Your task to perform on an android device: turn on javascript in the chrome app Image 0: 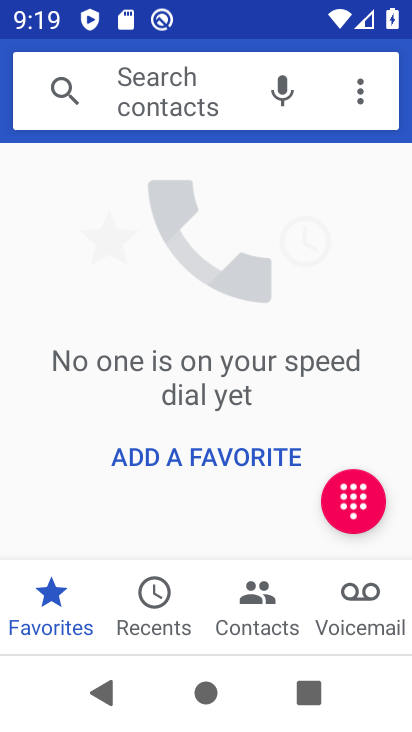
Step 0: press home button
Your task to perform on an android device: turn on javascript in the chrome app Image 1: 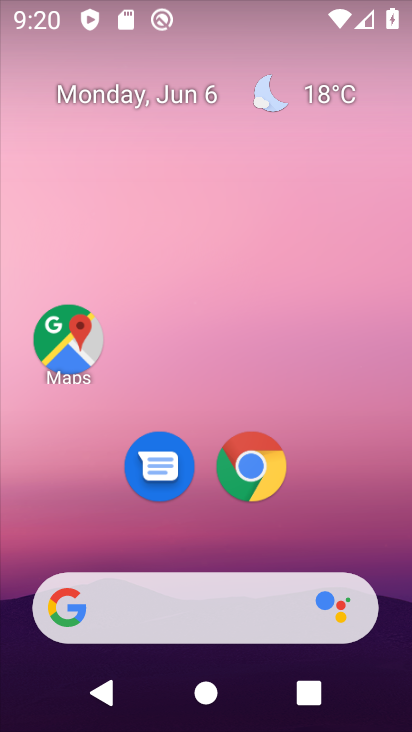
Step 1: click (261, 472)
Your task to perform on an android device: turn on javascript in the chrome app Image 2: 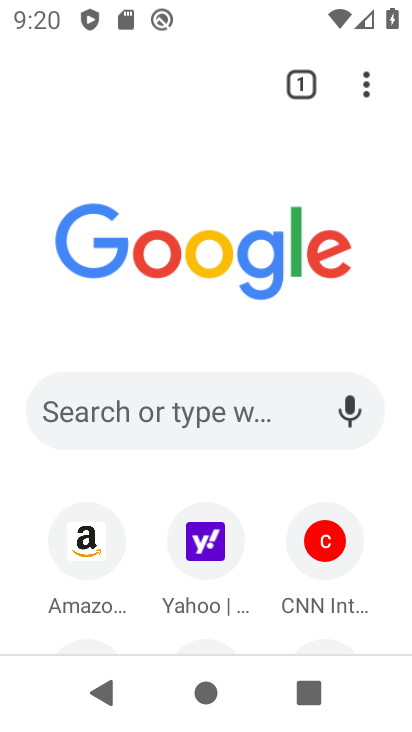
Step 2: click (366, 74)
Your task to perform on an android device: turn on javascript in the chrome app Image 3: 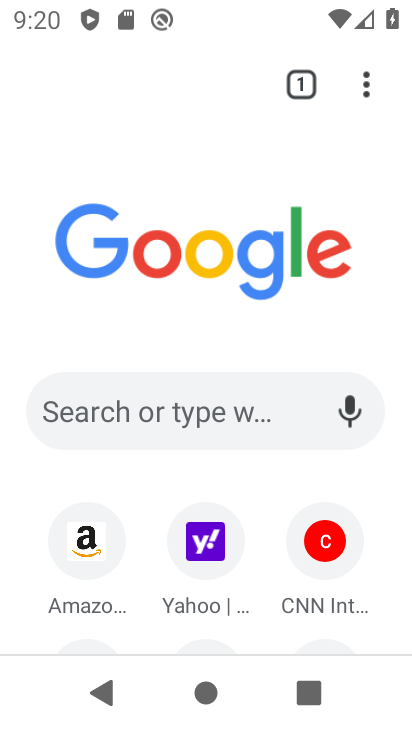
Step 3: click (365, 93)
Your task to perform on an android device: turn on javascript in the chrome app Image 4: 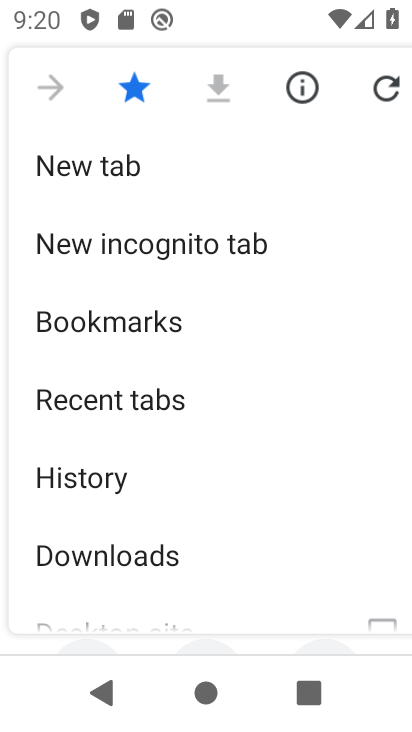
Step 4: drag from (199, 512) to (199, 201)
Your task to perform on an android device: turn on javascript in the chrome app Image 5: 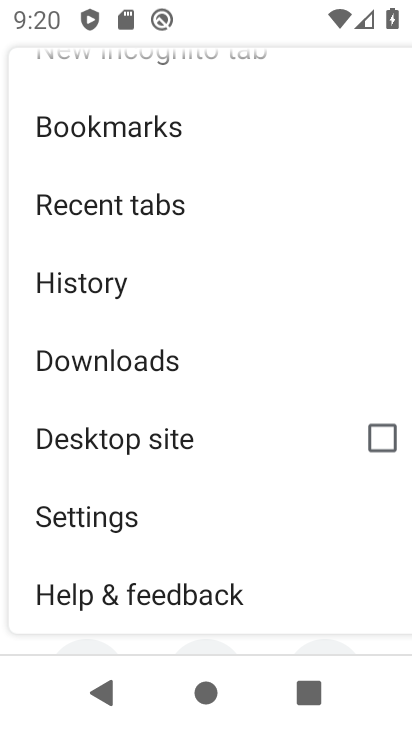
Step 5: click (94, 509)
Your task to perform on an android device: turn on javascript in the chrome app Image 6: 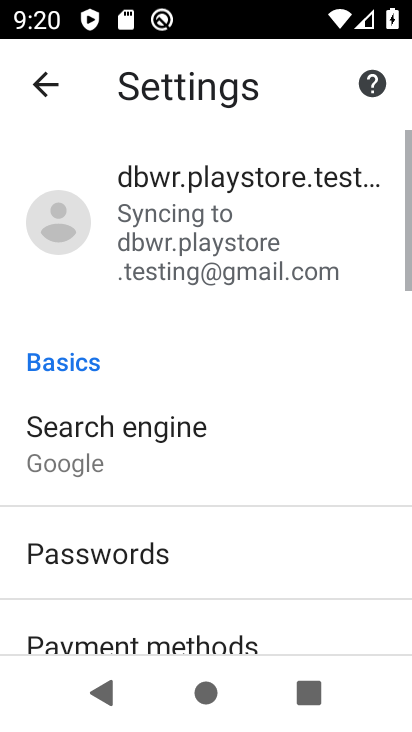
Step 6: click (207, 237)
Your task to perform on an android device: turn on javascript in the chrome app Image 7: 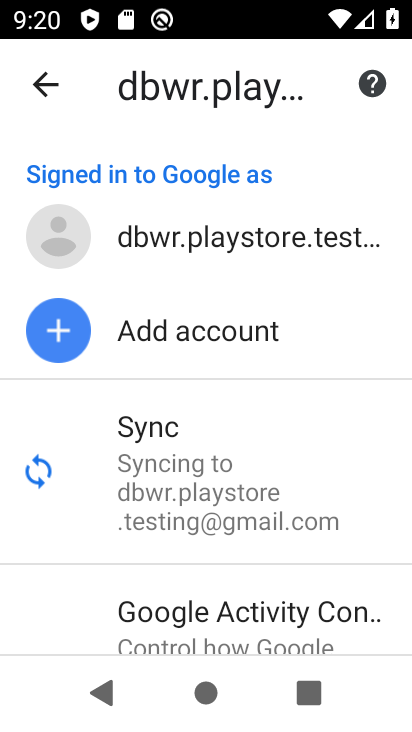
Step 7: click (43, 98)
Your task to perform on an android device: turn on javascript in the chrome app Image 8: 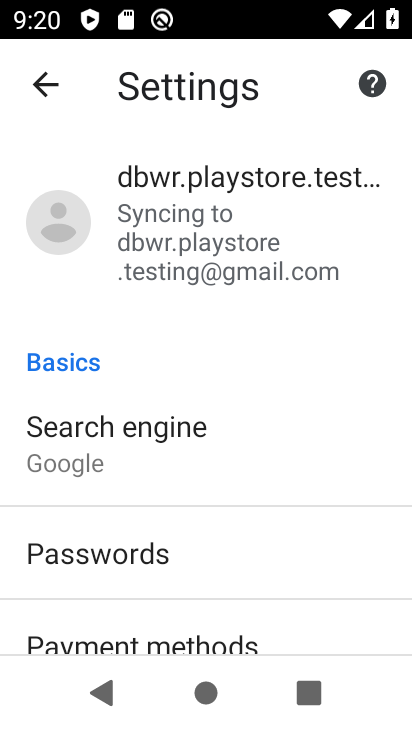
Step 8: drag from (114, 574) to (149, 220)
Your task to perform on an android device: turn on javascript in the chrome app Image 9: 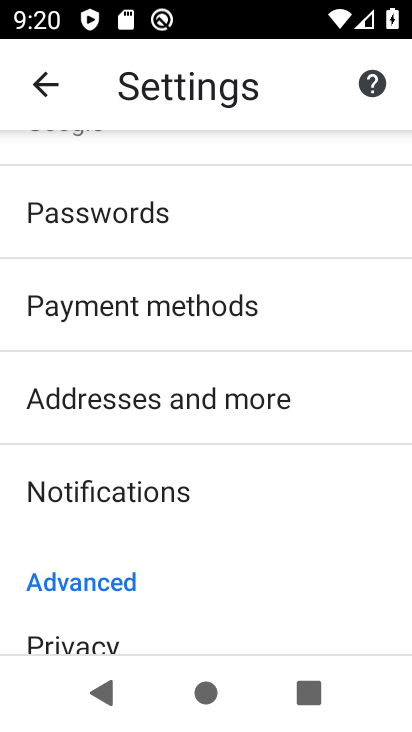
Step 9: drag from (185, 591) to (262, 283)
Your task to perform on an android device: turn on javascript in the chrome app Image 10: 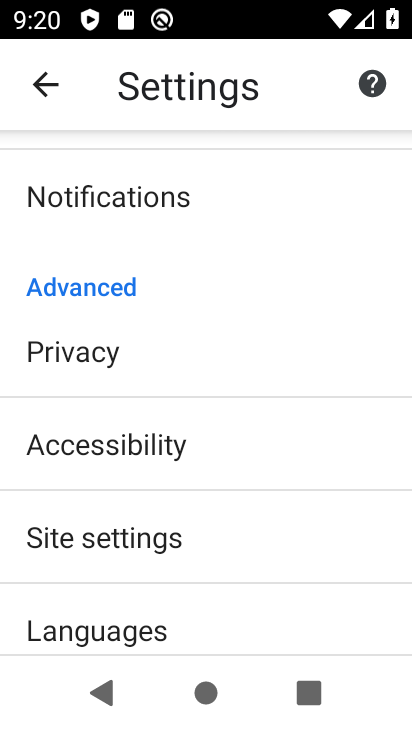
Step 10: click (137, 533)
Your task to perform on an android device: turn on javascript in the chrome app Image 11: 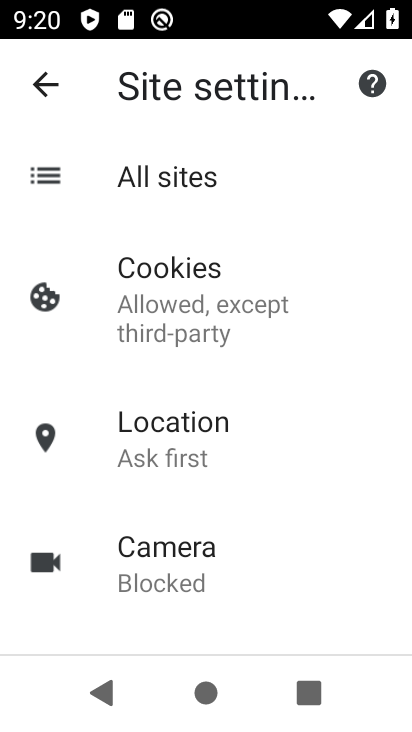
Step 11: drag from (235, 579) to (299, 122)
Your task to perform on an android device: turn on javascript in the chrome app Image 12: 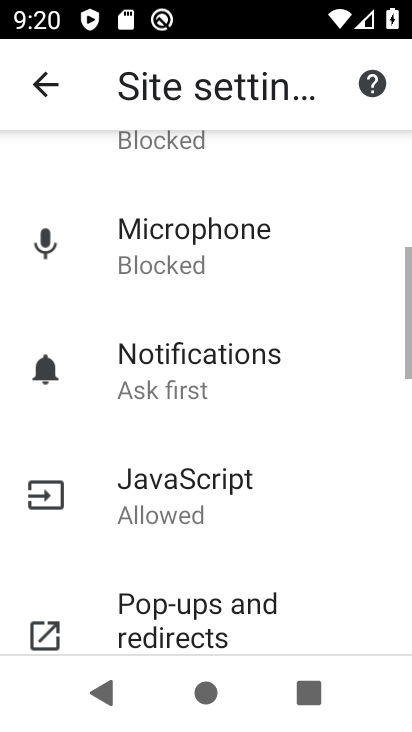
Step 12: click (189, 493)
Your task to perform on an android device: turn on javascript in the chrome app Image 13: 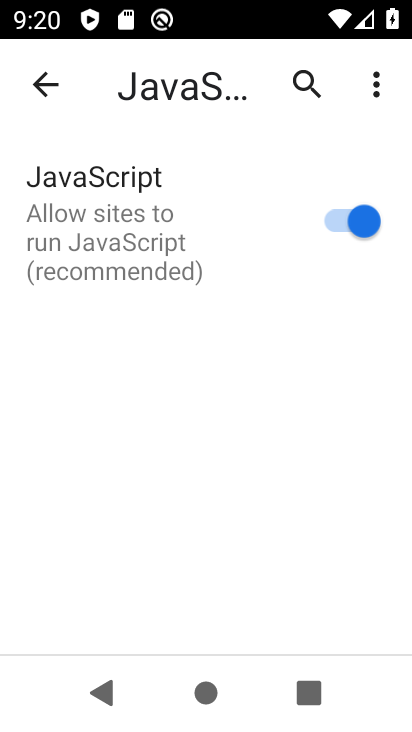
Step 13: task complete